Your task to perform on an android device: Open eBay Image 0: 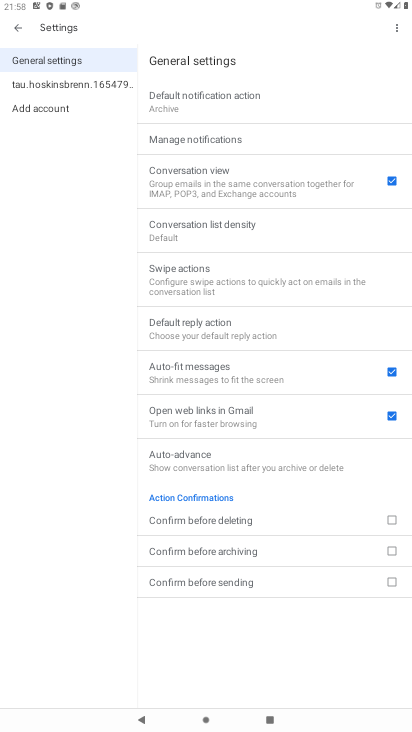
Step 0: press home button
Your task to perform on an android device: Open eBay Image 1: 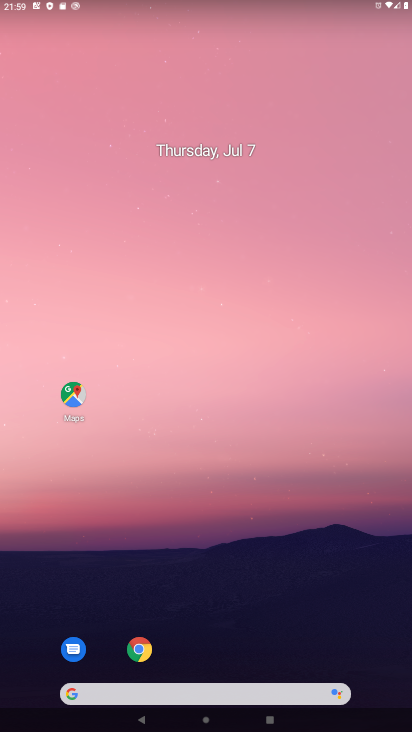
Step 1: click (137, 648)
Your task to perform on an android device: Open eBay Image 2: 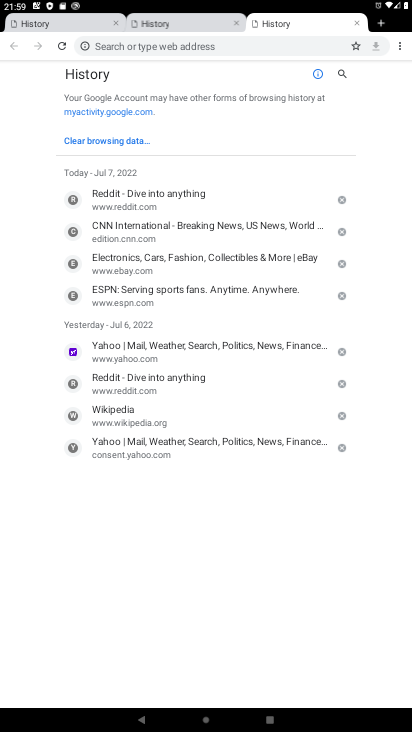
Step 2: click (399, 47)
Your task to perform on an android device: Open eBay Image 3: 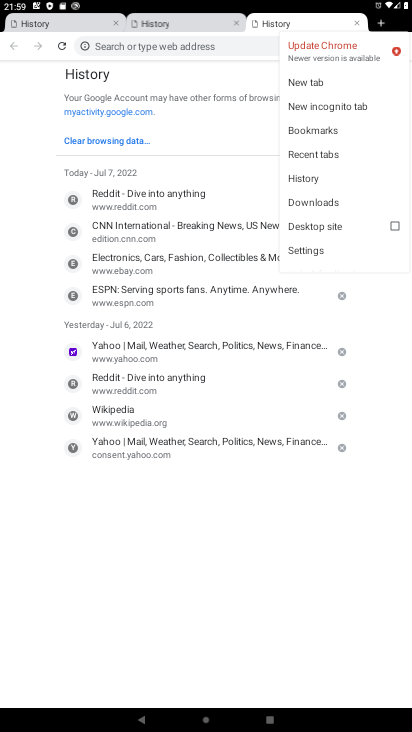
Step 3: click (305, 79)
Your task to perform on an android device: Open eBay Image 4: 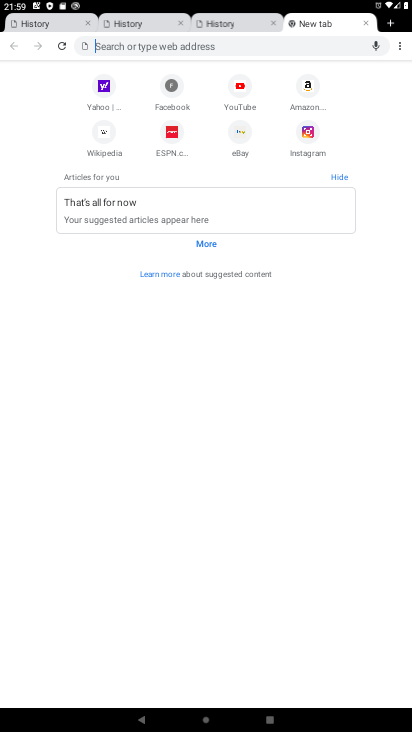
Step 4: click (237, 135)
Your task to perform on an android device: Open eBay Image 5: 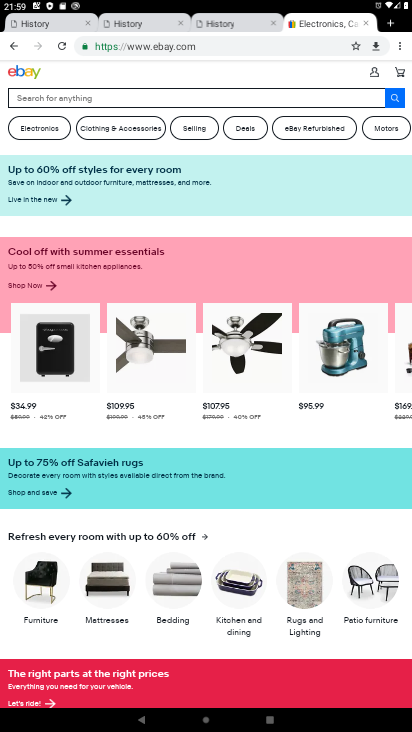
Step 5: task complete